Your task to perform on an android device: turn off improve location accuracy Image 0: 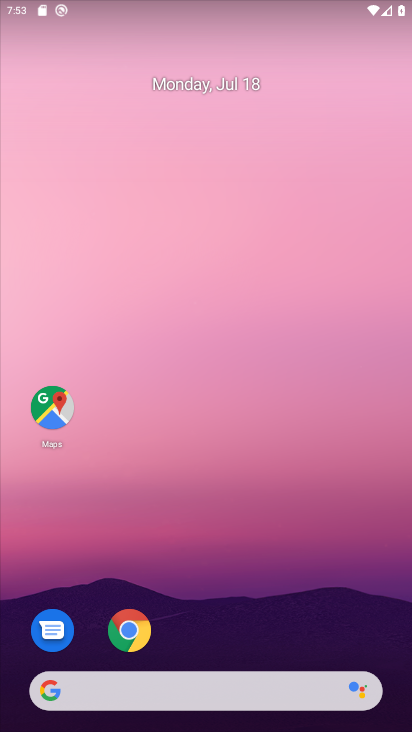
Step 0: drag from (266, 643) to (232, 177)
Your task to perform on an android device: turn off improve location accuracy Image 1: 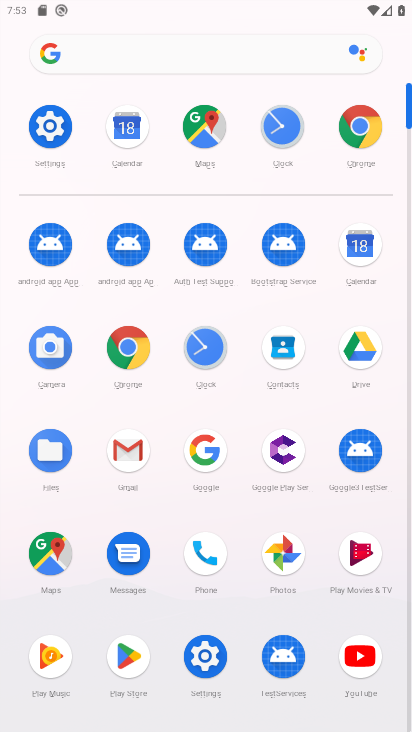
Step 1: click (61, 119)
Your task to perform on an android device: turn off improve location accuracy Image 2: 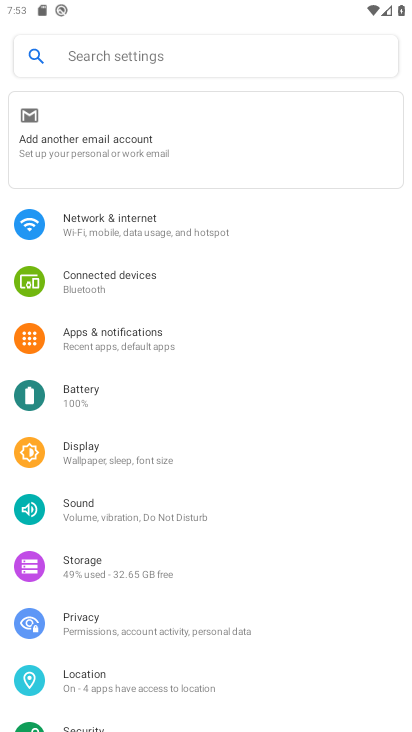
Step 2: click (124, 668)
Your task to perform on an android device: turn off improve location accuracy Image 3: 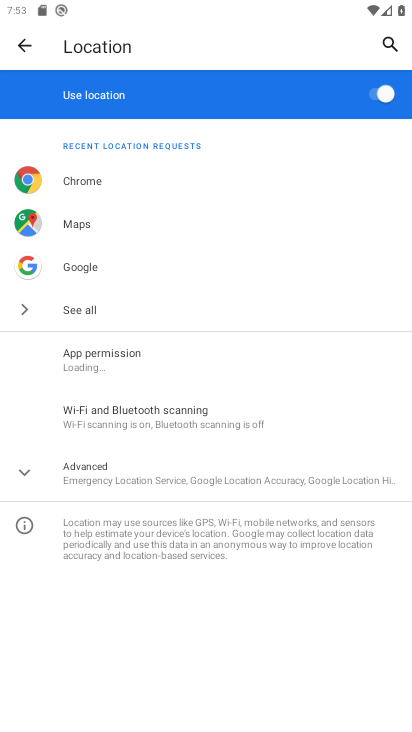
Step 3: click (176, 459)
Your task to perform on an android device: turn off improve location accuracy Image 4: 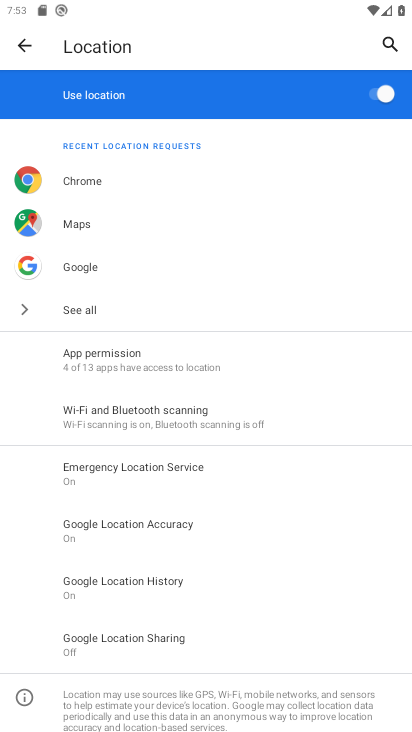
Step 4: click (145, 544)
Your task to perform on an android device: turn off improve location accuracy Image 5: 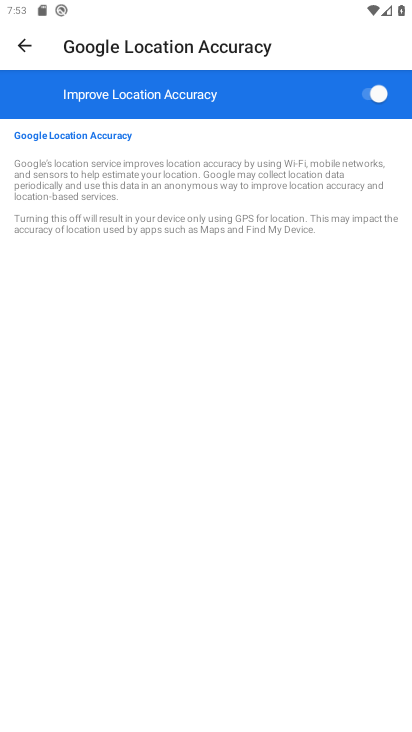
Step 5: click (392, 96)
Your task to perform on an android device: turn off improve location accuracy Image 6: 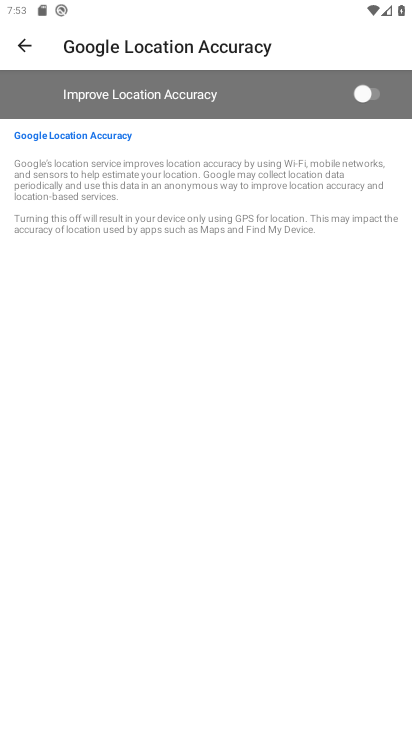
Step 6: task complete